Your task to perform on an android device: Open Maps and search for coffee Image 0: 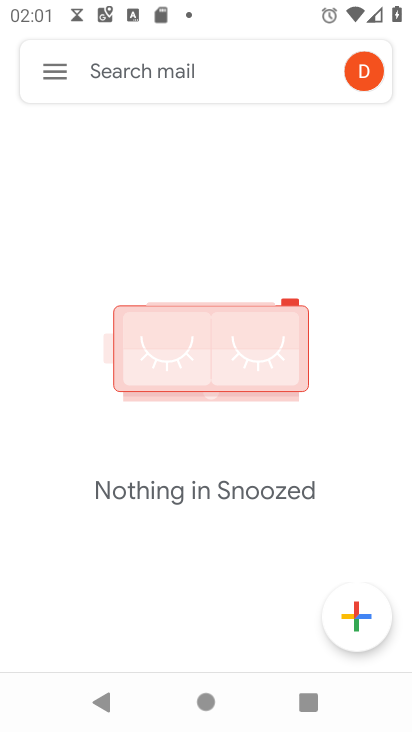
Step 0: press home button
Your task to perform on an android device: Open Maps and search for coffee Image 1: 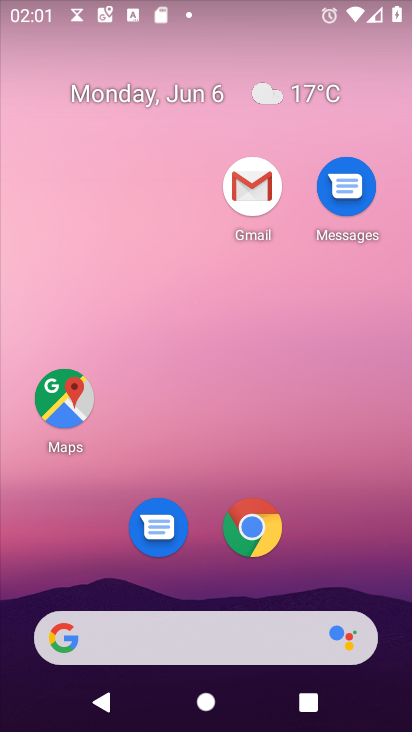
Step 1: click (80, 391)
Your task to perform on an android device: Open Maps and search for coffee Image 2: 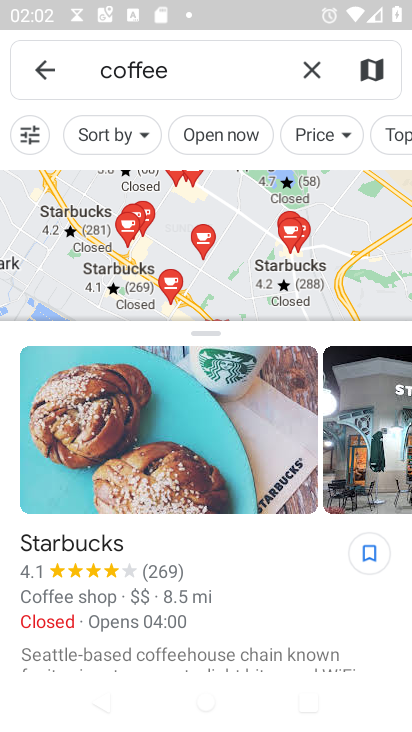
Step 2: click (313, 76)
Your task to perform on an android device: Open Maps and search for coffee Image 3: 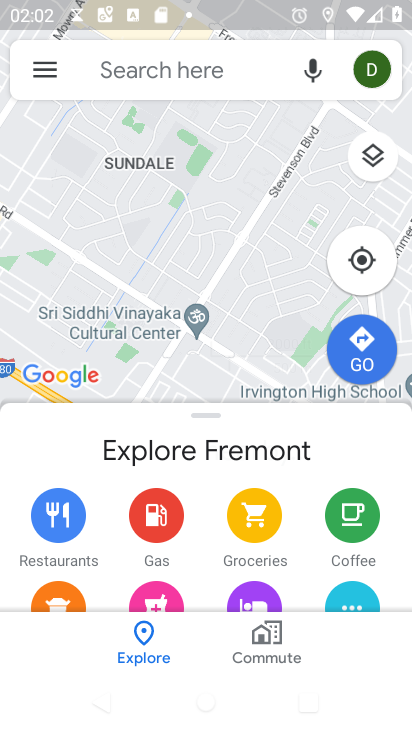
Step 3: click (112, 65)
Your task to perform on an android device: Open Maps and search for coffee Image 4: 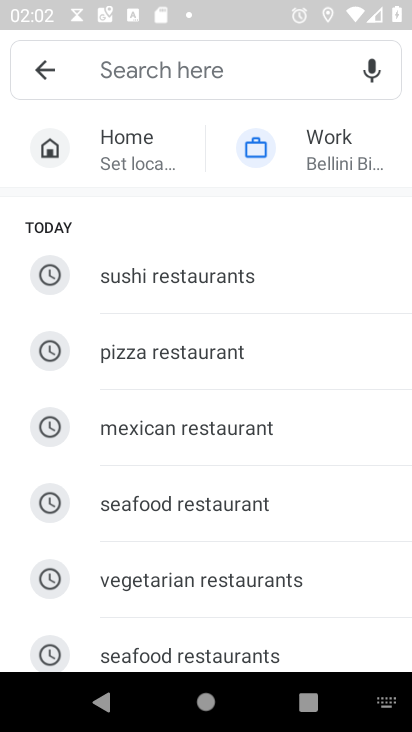
Step 4: type "coffee"
Your task to perform on an android device: Open Maps and search for coffee Image 5: 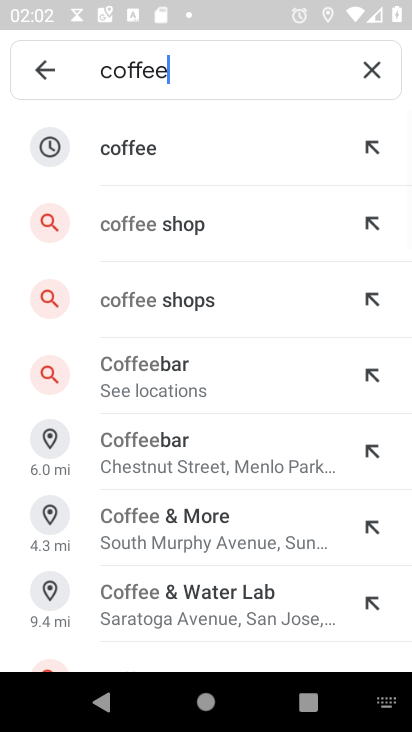
Step 5: click (210, 149)
Your task to perform on an android device: Open Maps and search for coffee Image 6: 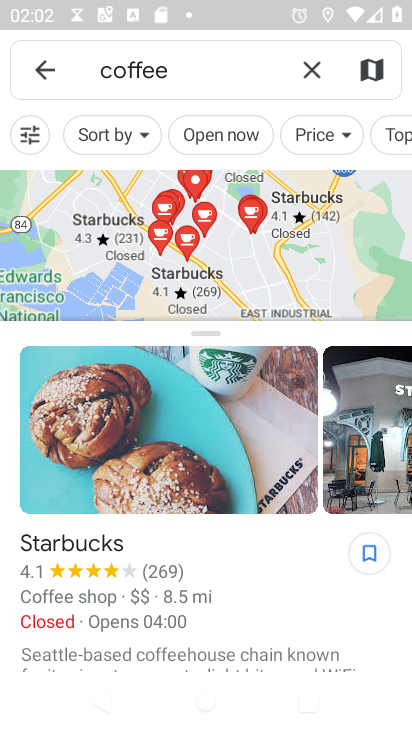
Step 6: task complete